Your task to perform on an android device: change the clock display to digital Image 0: 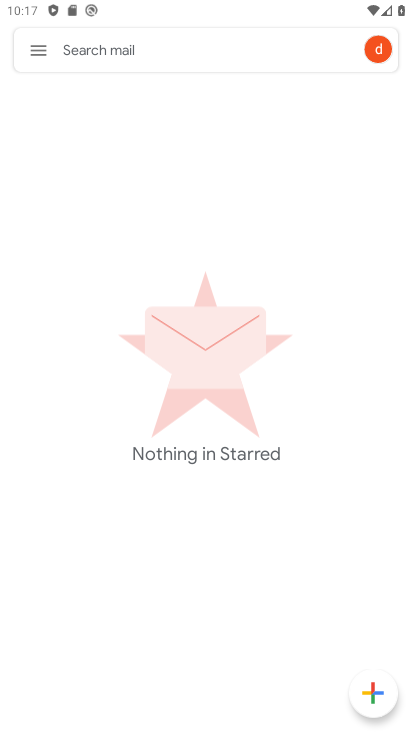
Step 0: press home button
Your task to perform on an android device: change the clock display to digital Image 1: 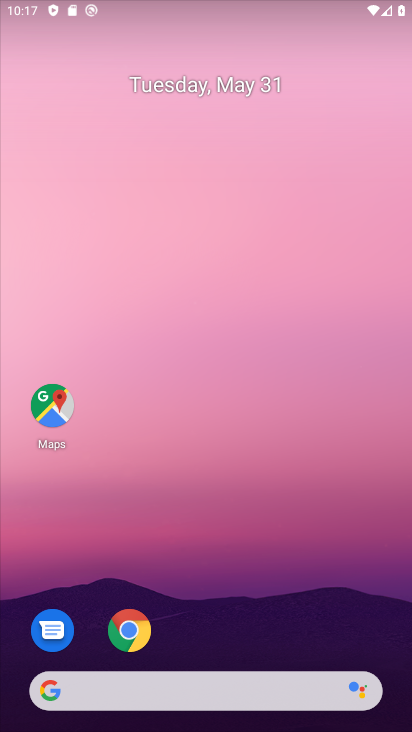
Step 1: drag from (241, 683) to (288, 213)
Your task to perform on an android device: change the clock display to digital Image 2: 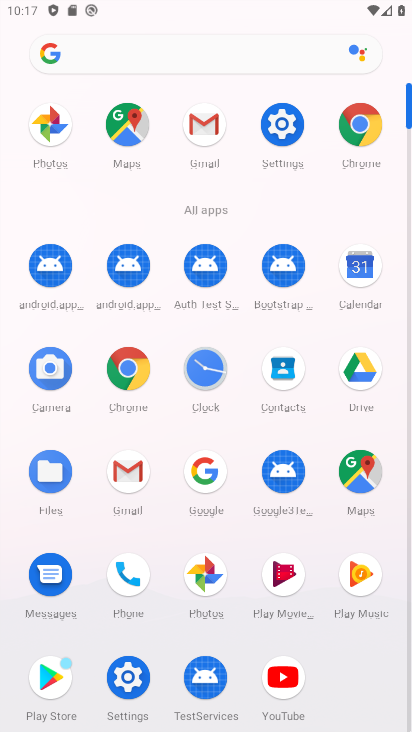
Step 2: click (206, 376)
Your task to perform on an android device: change the clock display to digital Image 3: 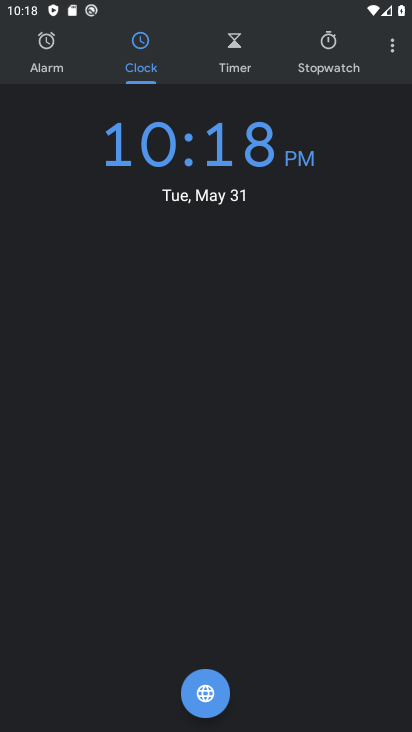
Step 3: click (358, 47)
Your task to perform on an android device: change the clock display to digital Image 4: 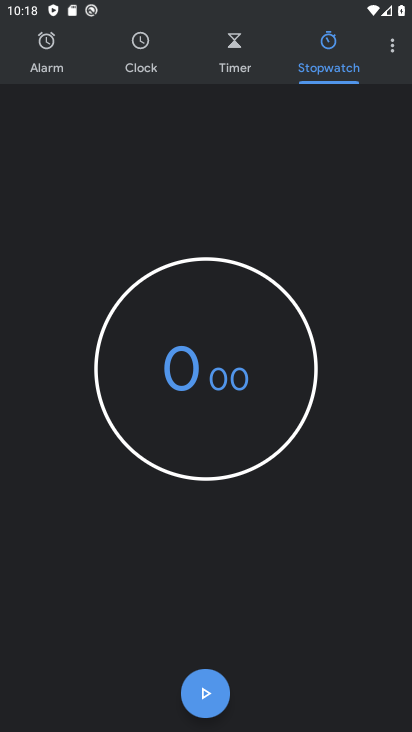
Step 4: click (393, 50)
Your task to perform on an android device: change the clock display to digital Image 5: 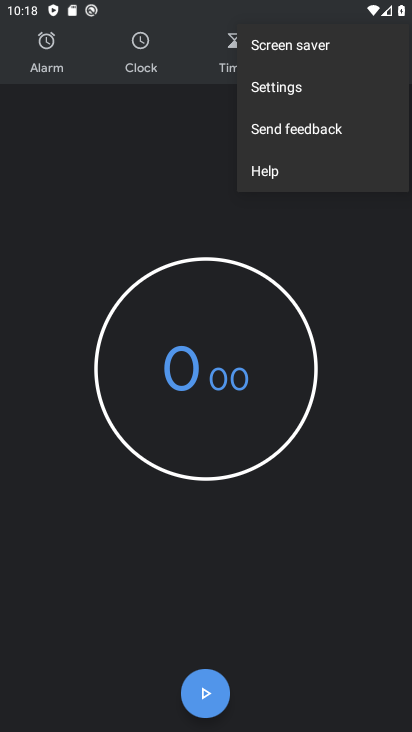
Step 5: click (276, 89)
Your task to perform on an android device: change the clock display to digital Image 6: 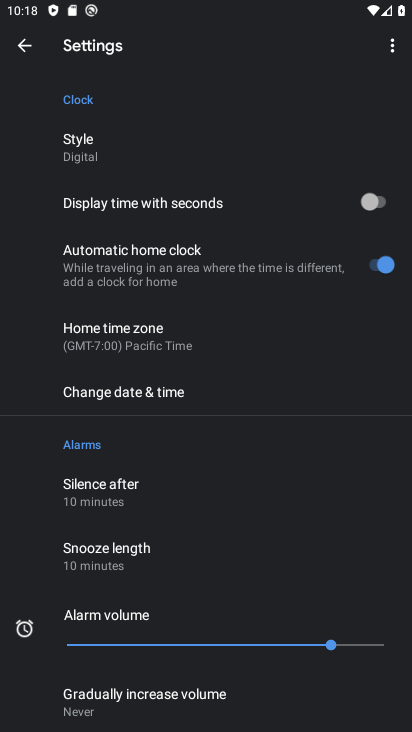
Step 6: task complete